Your task to perform on an android device: open a new tab in the chrome app Image 0: 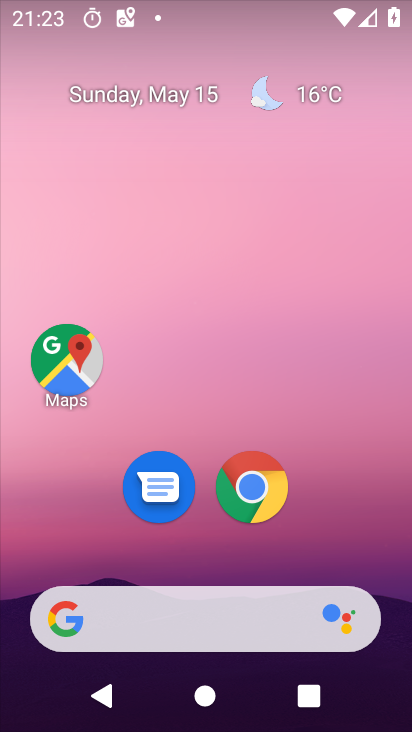
Step 0: click (252, 491)
Your task to perform on an android device: open a new tab in the chrome app Image 1: 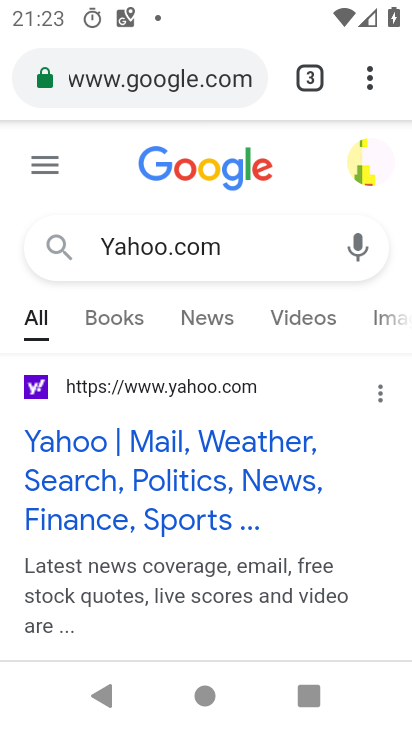
Step 1: click (367, 70)
Your task to perform on an android device: open a new tab in the chrome app Image 2: 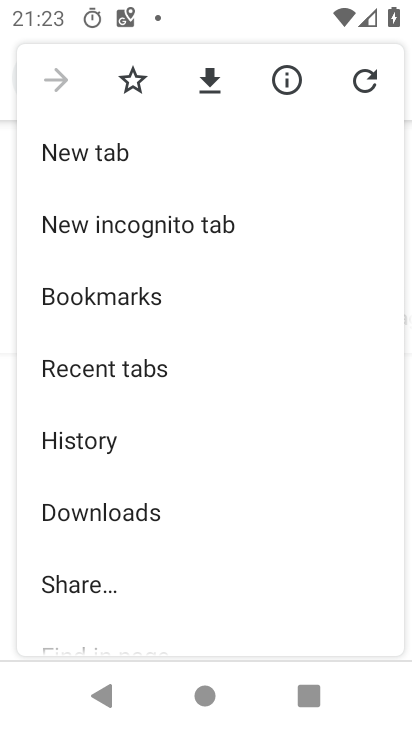
Step 2: click (45, 150)
Your task to perform on an android device: open a new tab in the chrome app Image 3: 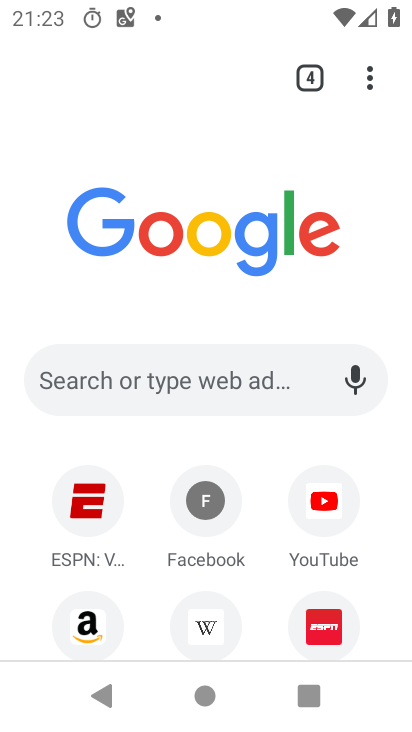
Step 3: task complete